Your task to perform on an android device: Open calendar and show me the fourth week of next month Image 0: 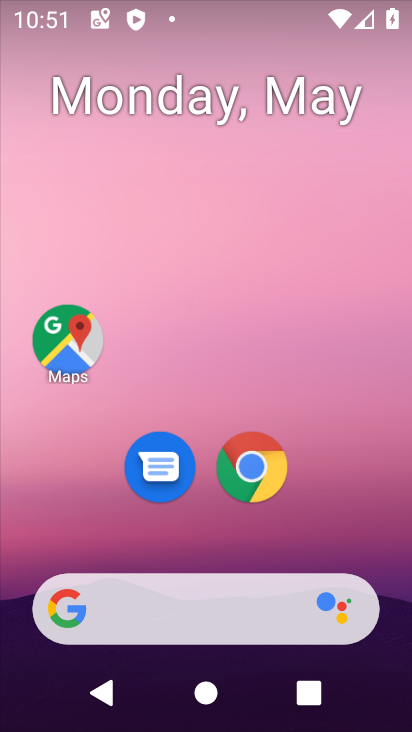
Step 0: drag from (380, 581) to (349, 111)
Your task to perform on an android device: Open calendar and show me the fourth week of next month Image 1: 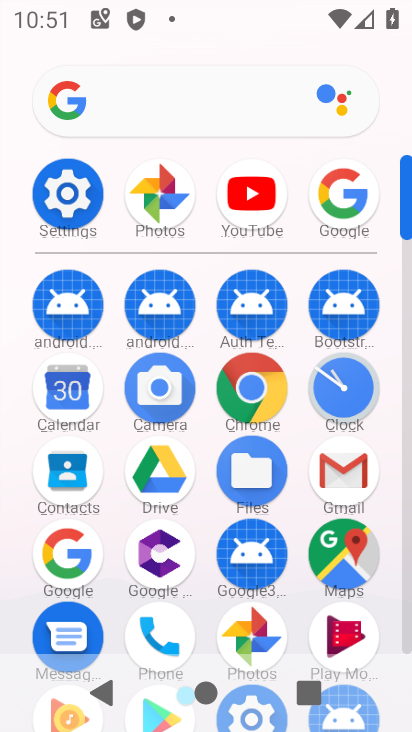
Step 1: click (74, 393)
Your task to perform on an android device: Open calendar and show me the fourth week of next month Image 2: 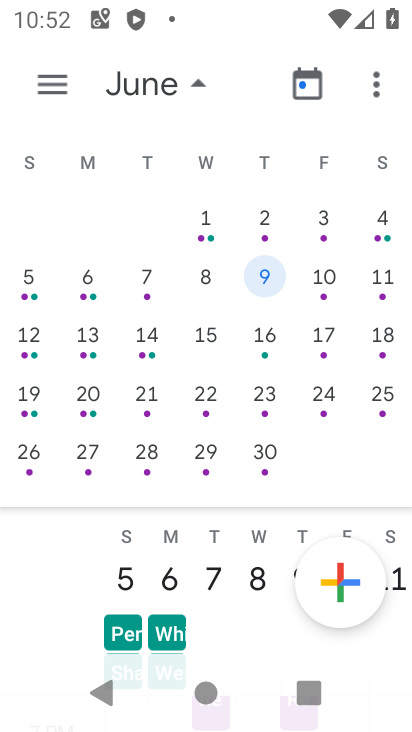
Step 2: click (262, 389)
Your task to perform on an android device: Open calendar and show me the fourth week of next month Image 3: 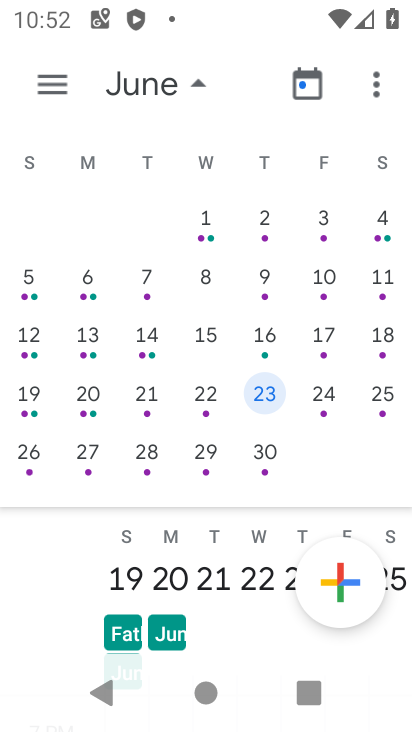
Step 3: task complete